Your task to perform on an android device: Go to location settings Image 0: 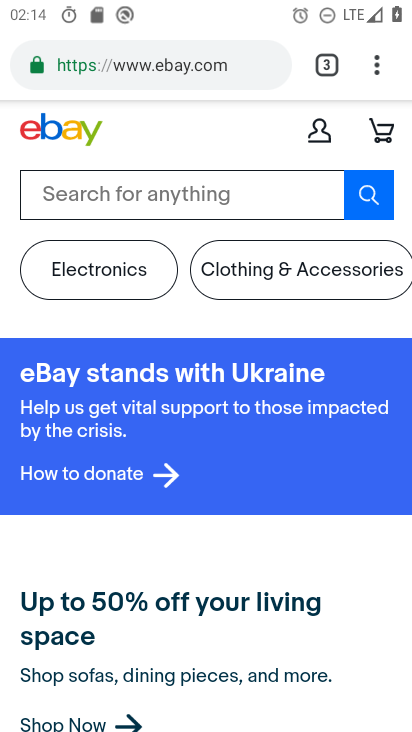
Step 0: press home button
Your task to perform on an android device: Go to location settings Image 1: 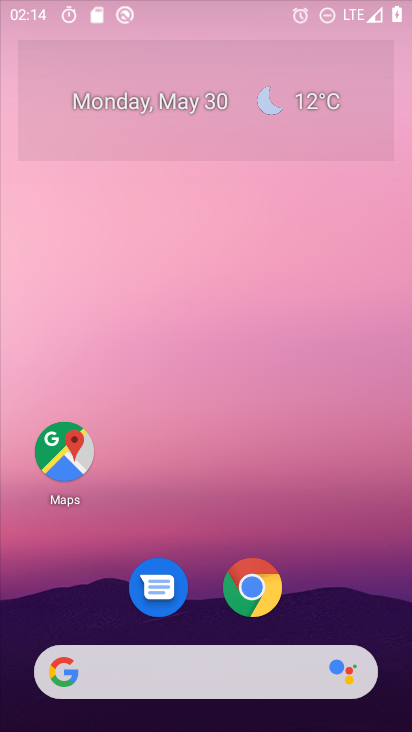
Step 1: drag from (322, 511) to (335, 89)
Your task to perform on an android device: Go to location settings Image 2: 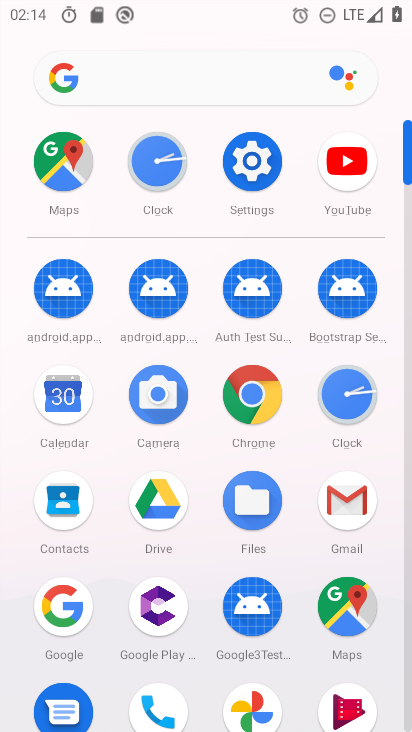
Step 2: click (246, 166)
Your task to perform on an android device: Go to location settings Image 3: 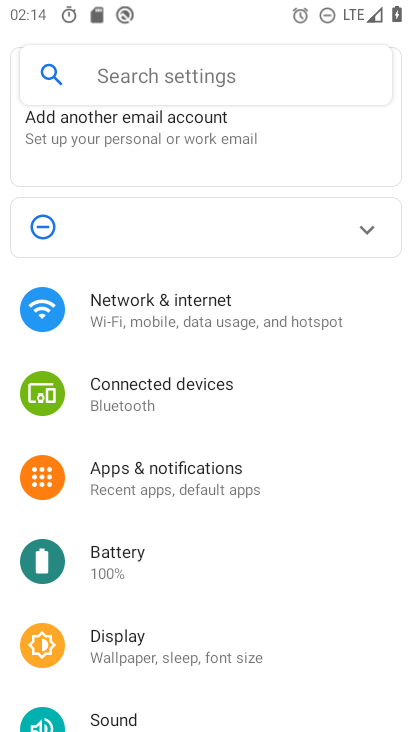
Step 3: drag from (278, 665) to (307, 269)
Your task to perform on an android device: Go to location settings Image 4: 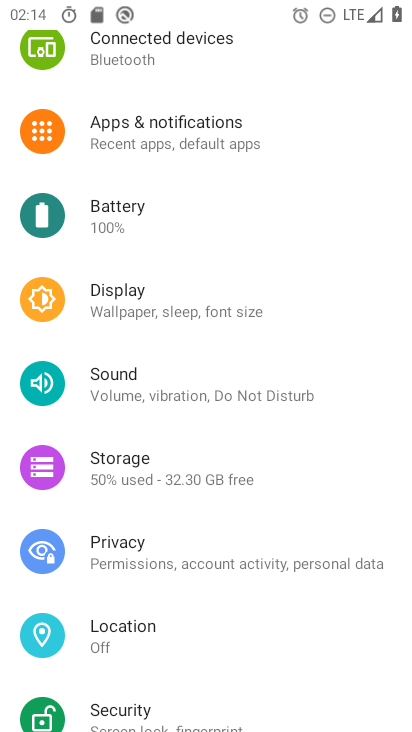
Step 4: drag from (299, 613) to (342, 217)
Your task to perform on an android device: Go to location settings Image 5: 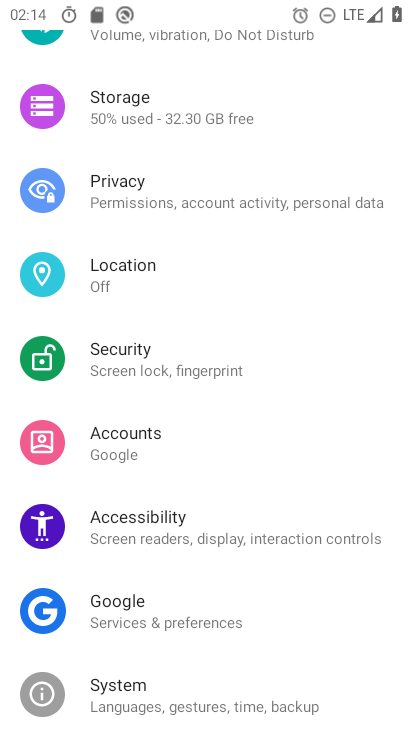
Step 5: drag from (238, 151) to (266, 630)
Your task to perform on an android device: Go to location settings Image 6: 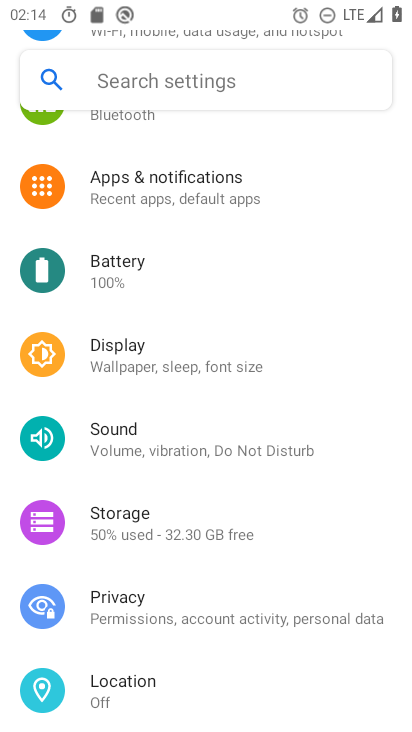
Step 6: drag from (258, 309) to (261, 582)
Your task to perform on an android device: Go to location settings Image 7: 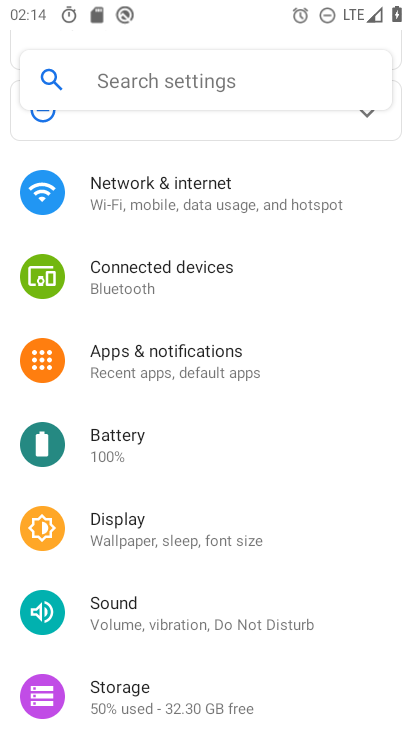
Step 7: drag from (275, 420) to (252, 61)
Your task to perform on an android device: Go to location settings Image 8: 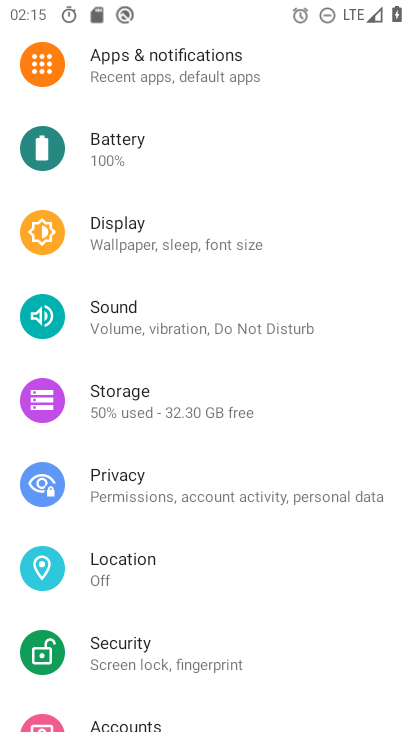
Step 8: click (148, 564)
Your task to perform on an android device: Go to location settings Image 9: 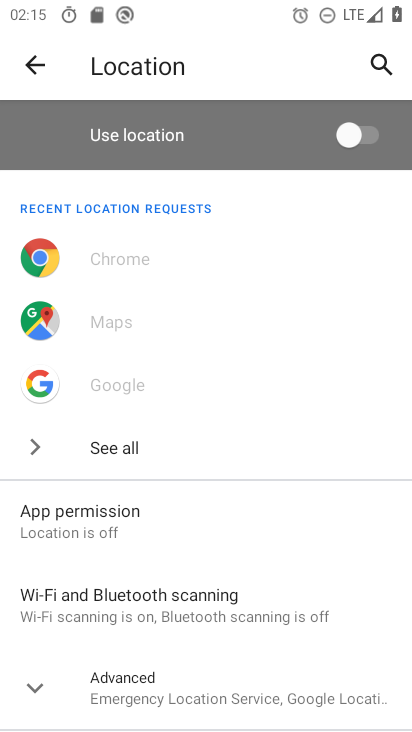
Step 9: task complete